Your task to perform on an android device: open app "Chime – Mobile Banking" (install if not already installed) Image 0: 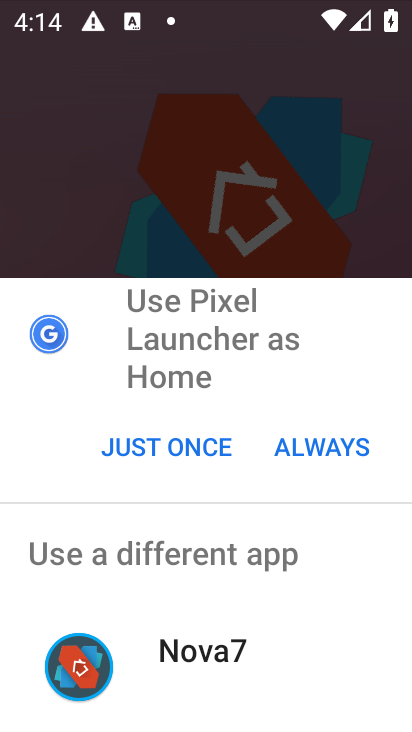
Step 0: click (161, 444)
Your task to perform on an android device: open app "Chime – Mobile Banking" (install if not already installed) Image 1: 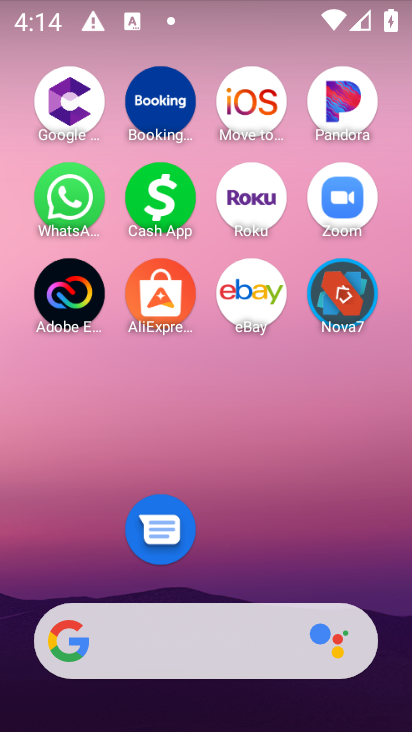
Step 1: drag from (303, 538) to (190, 67)
Your task to perform on an android device: open app "Chime – Mobile Banking" (install if not already installed) Image 2: 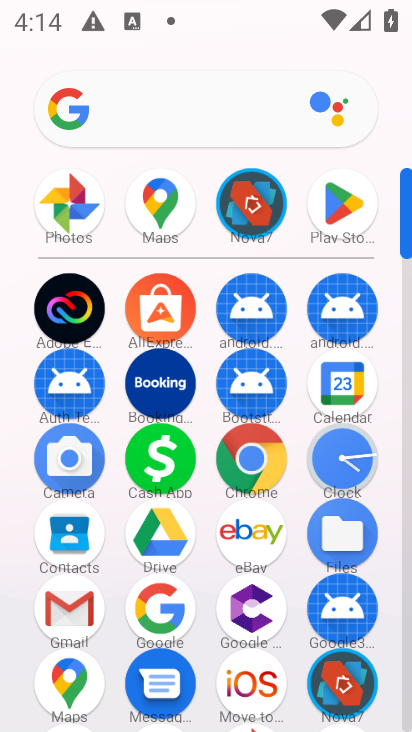
Step 2: click (328, 198)
Your task to perform on an android device: open app "Chime – Mobile Banking" (install if not already installed) Image 3: 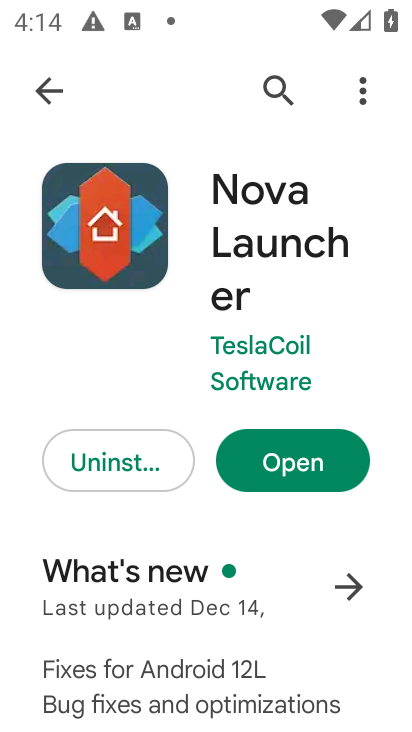
Step 3: press back button
Your task to perform on an android device: open app "Chime – Mobile Banking" (install if not already installed) Image 4: 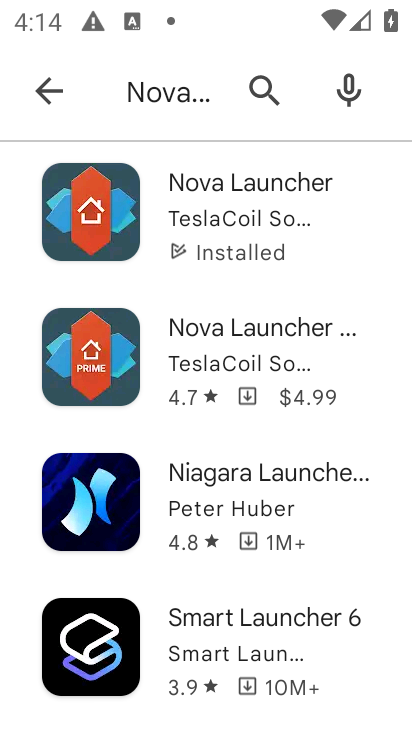
Step 4: press back button
Your task to perform on an android device: open app "Chime – Mobile Banking" (install if not already installed) Image 5: 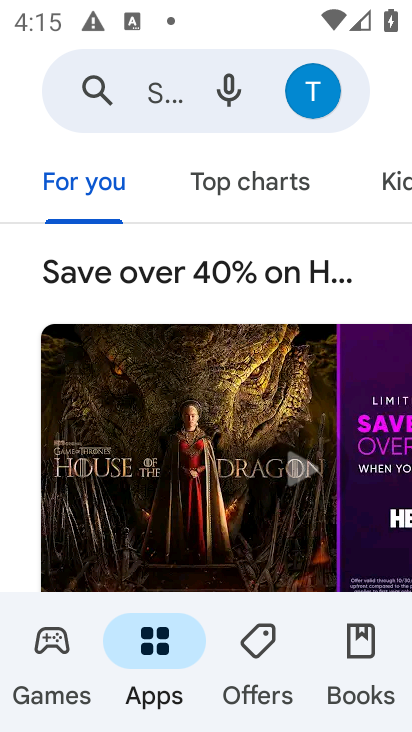
Step 5: click (164, 93)
Your task to perform on an android device: open app "Chime – Mobile Banking" (install if not already installed) Image 6: 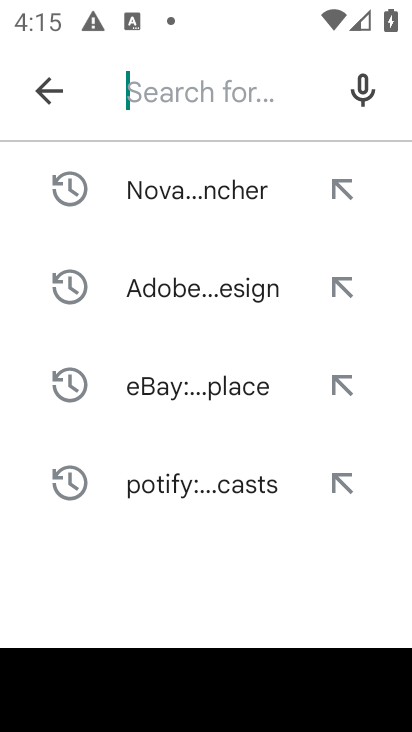
Step 6: type "Chime"
Your task to perform on an android device: open app "Chime – Mobile Banking" (install if not already installed) Image 7: 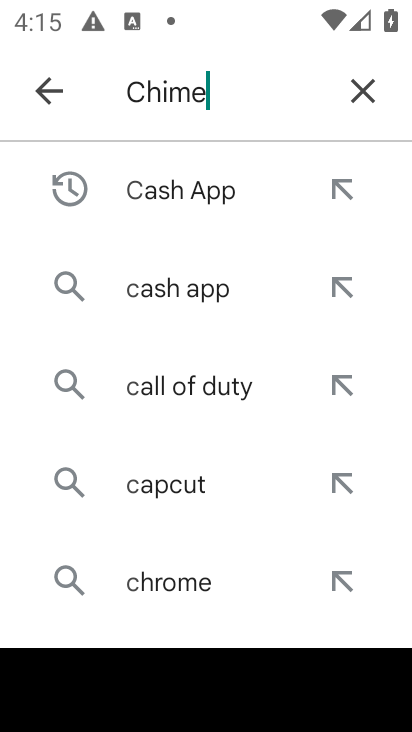
Step 7: press enter
Your task to perform on an android device: open app "Chime – Mobile Banking" (install if not already installed) Image 8: 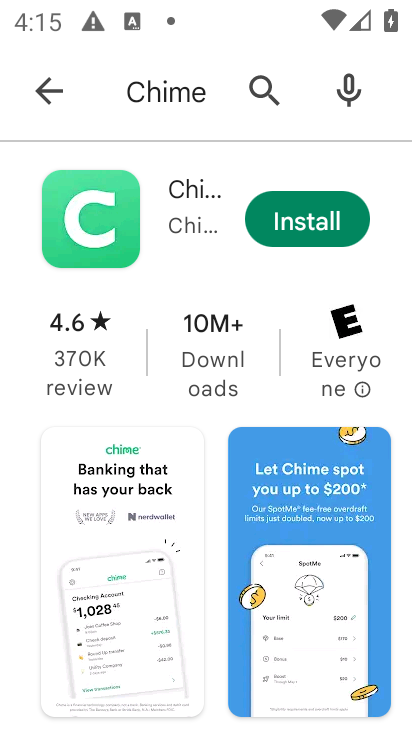
Step 8: click (303, 216)
Your task to perform on an android device: open app "Chime – Mobile Banking" (install if not already installed) Image 9: 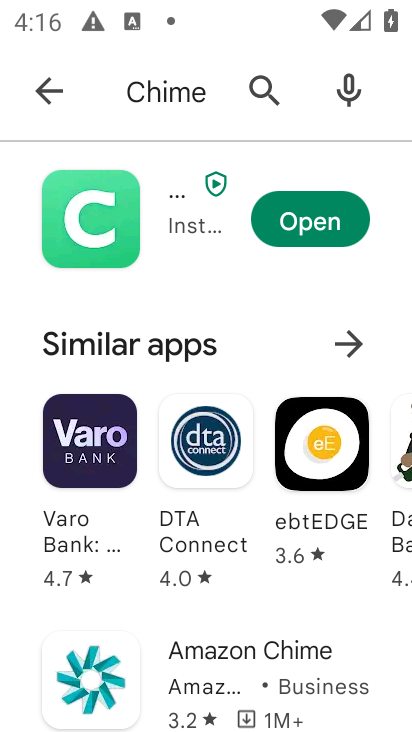
Step 9: click (306, 230)
Your task to perform on an android device: open app "Chime – Mobile Banking" (install if not already installed) Image 10: 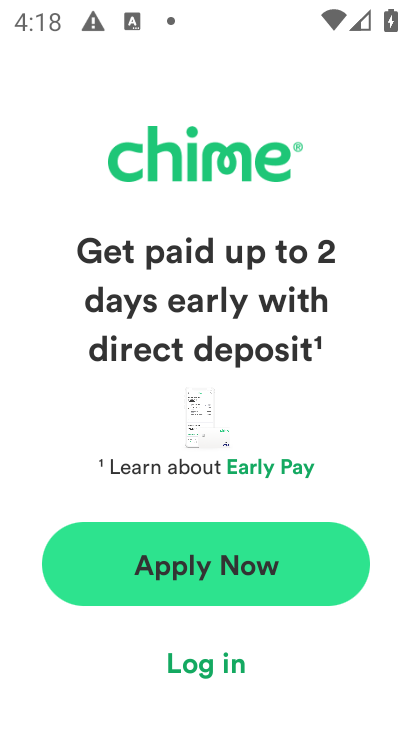
Step 10: task complete